Your task to perform on an android device: Go to Wikipedia Image 0: 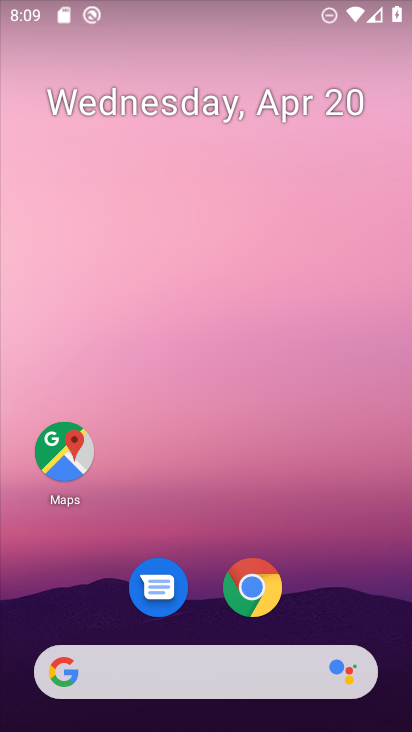
Step 0: click (250, 579)
Your task to perform on an android device: Go to Wikipedia Image 1: 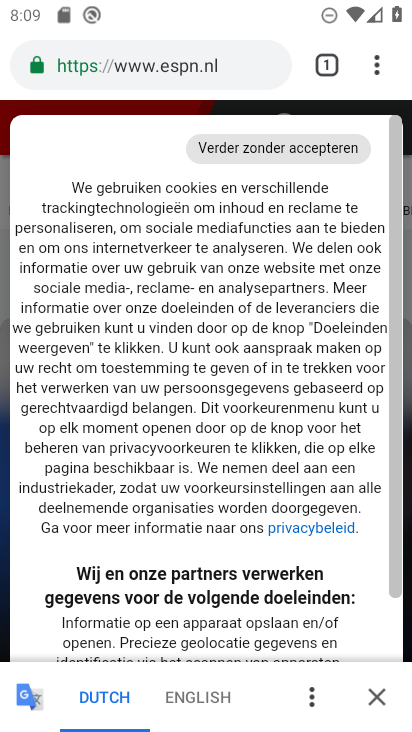
Step 1: click (373, 697)
Your task to perform on an android device: Go to Wikipedia Image 2: 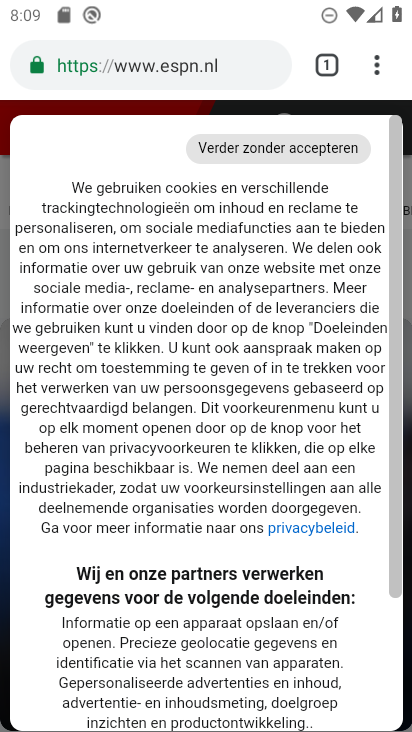
Step 2: click (325, 64)
Your task to perform on an android device: Go to Wikipedia Image 3: 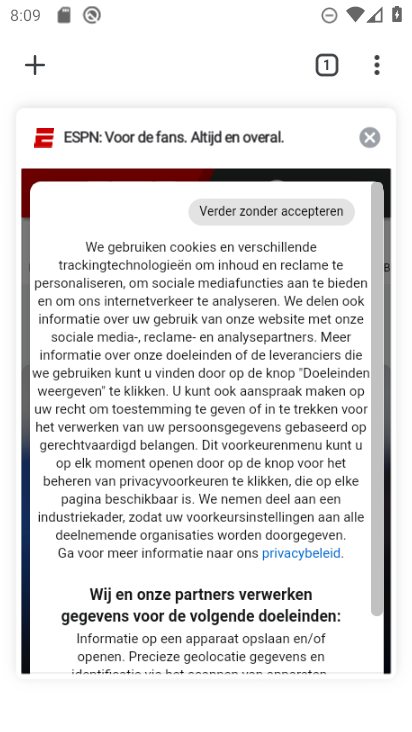
Step 3: click (19, 68)
Your task to perform on an android device: Go to Wikipedia Image 4: 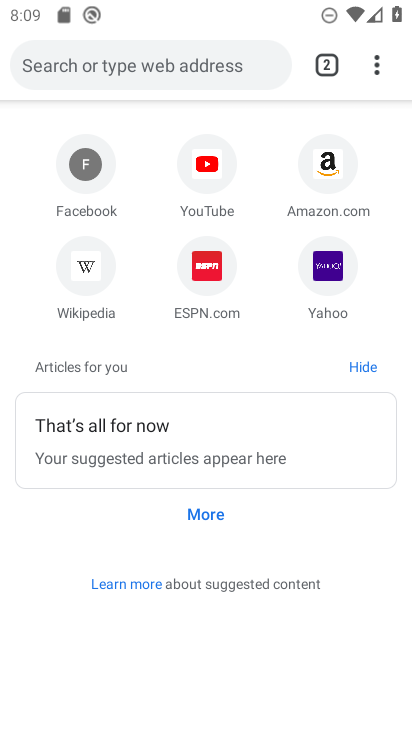
Step 4: click (75, 274)
Your task to perform on an android device: Go to Wikipedia Image 5: 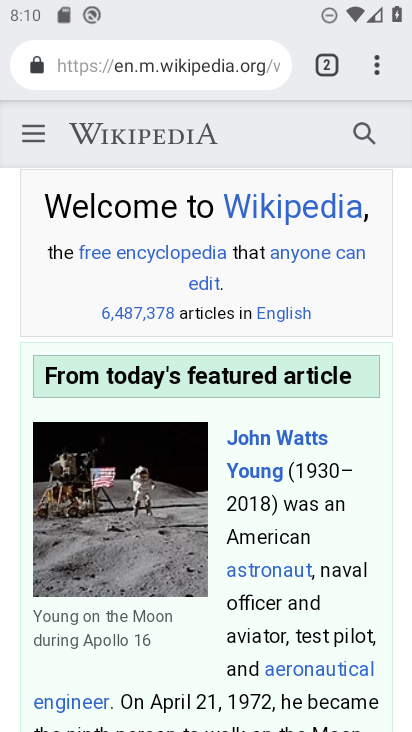
Step 5: task complete